Your task to perform on an android device: Go to Google maps Image 0: 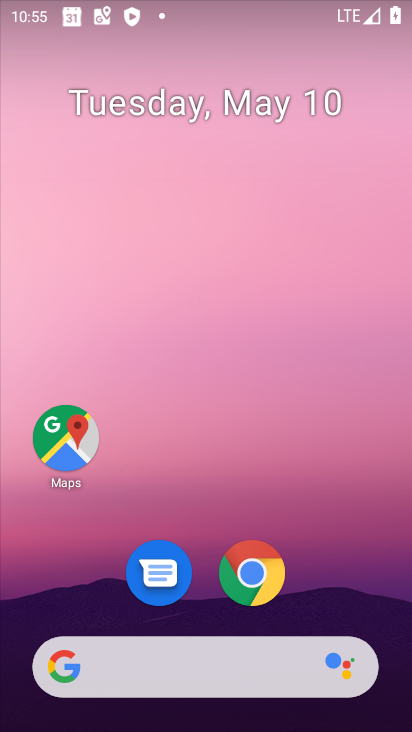
Step 0: click (58, 449)
Your task to perform on an android device: Go to Google maps Image 1: 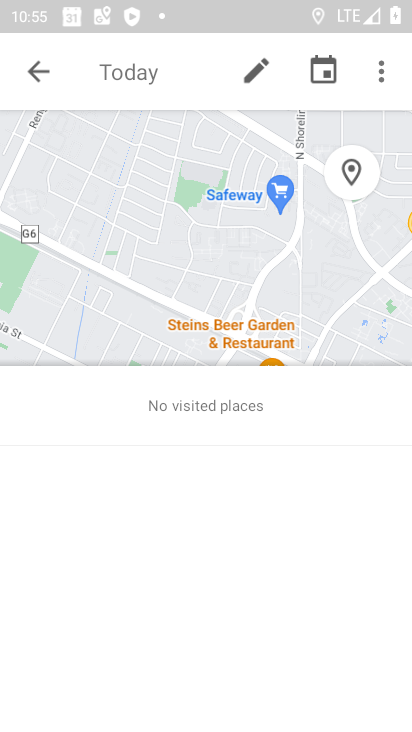
Step 1: click (38, 71)
Your task to perform on an android device: Go to Google maps Image 2: 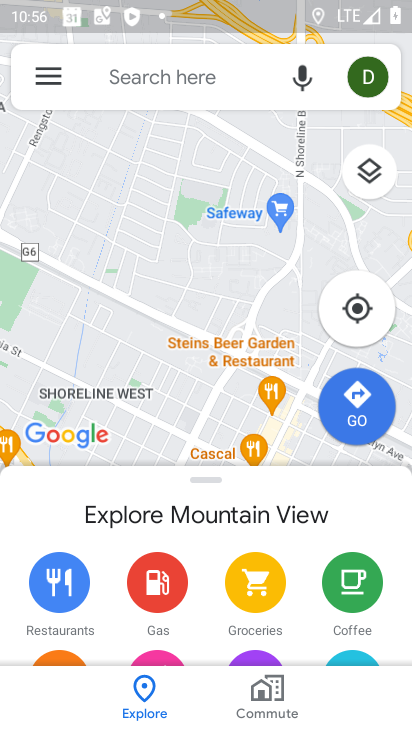
Step 2: task complete